Your task to perform on an android device: turn on sleep mode Image 0: 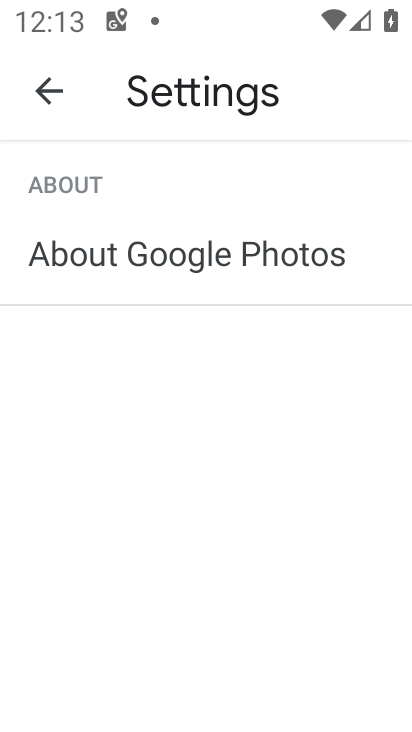
Step 0: press back button
Your task to perform on an android device: turn on sleep mode Image 1: 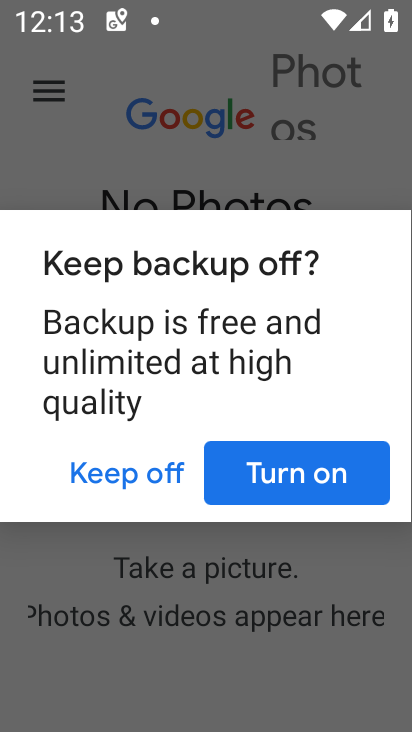
Step 1: press home button
Your task to perform on an android device: turn on sleep mode Image 2: 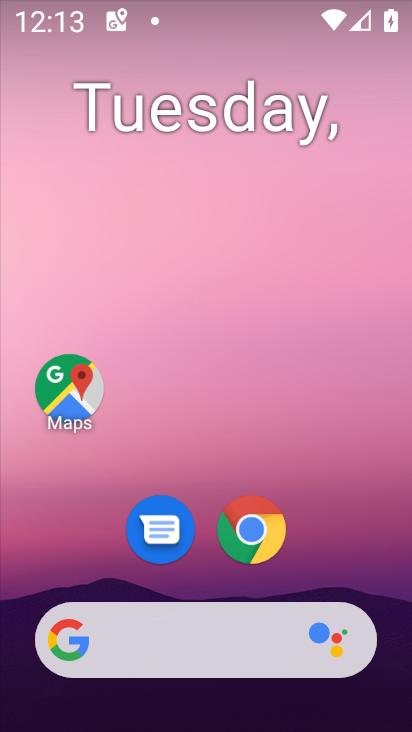
Step 2: drag from (220, 577) to (325, 42)
Your task to perform on an android device: turn on sleep mode Image 3: 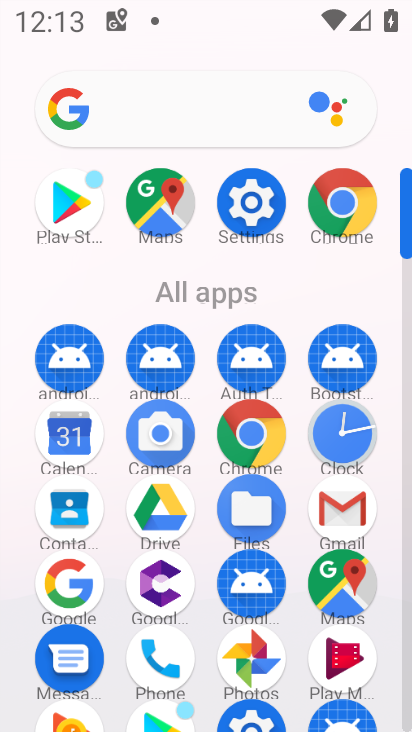
Step 3: click (244, 196)
Your task to perform on an android device: turn on sleep mode Image 4: 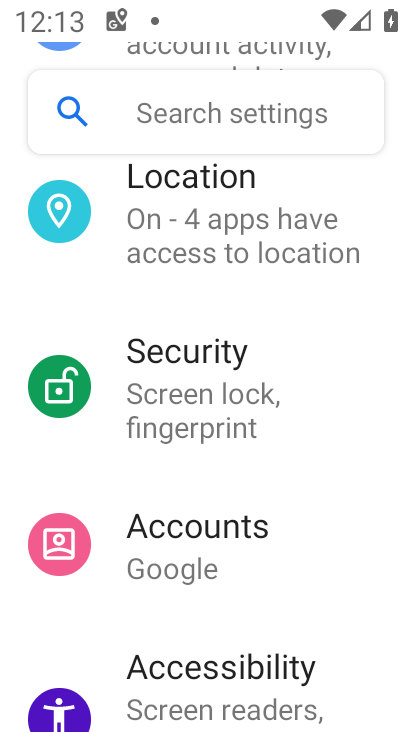
Step 4: click (203, 124)
Your task to perform on an android device: turn on sleep mode Image 5: 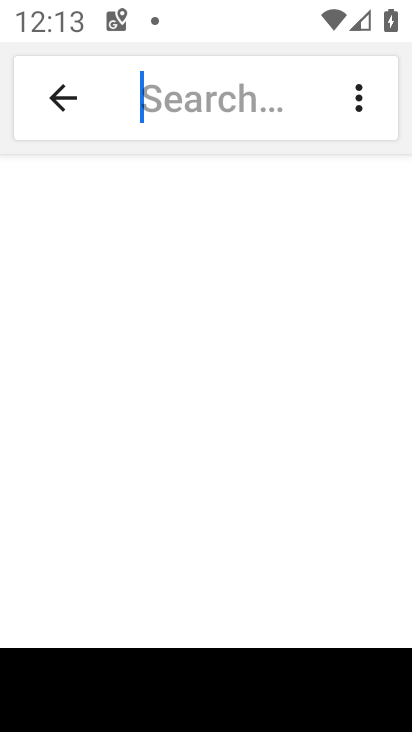
Step 5: click (177, 106)
Your task to perform on an android device: turn on sleep mode Image 6: 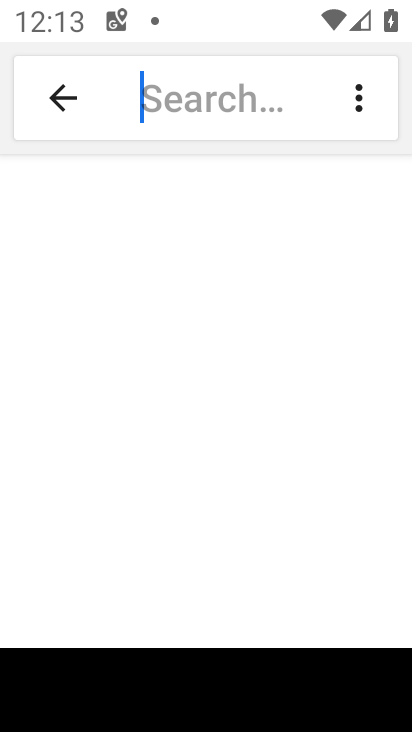
Step 6: type "sleep mode"
Your task to perform on an android device: turn on sleep mode Image 7: 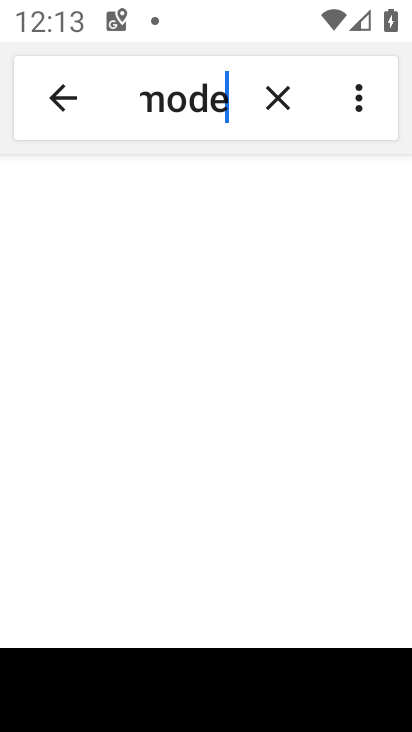
Step 7: task complete